Your task to perform on an android device: snooze an email in the gmail app Image 0: 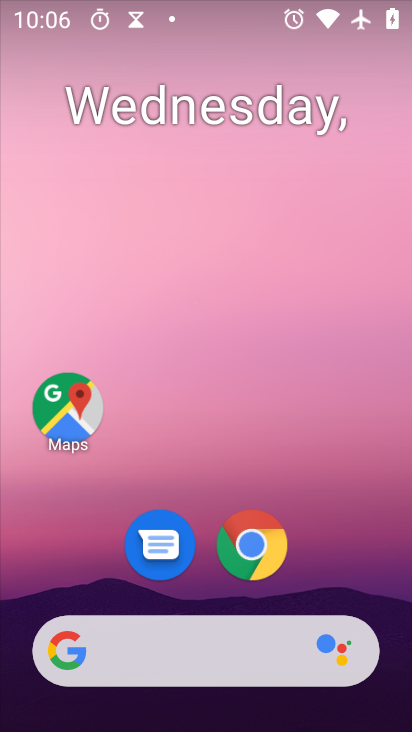
Step 0: press home button
Your task to perform on an android device: snooze an email in the gmail app Image 1: 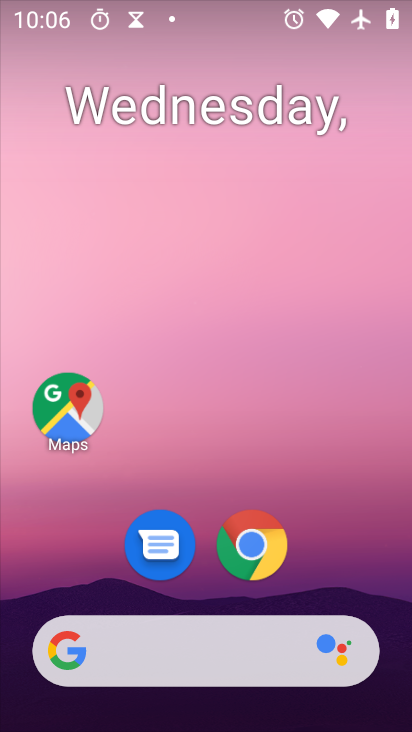
Step 1: drag from (191, 650) to (249, 98)
Your task to perform on an android device: snooze an email in the gmail app Image 2: 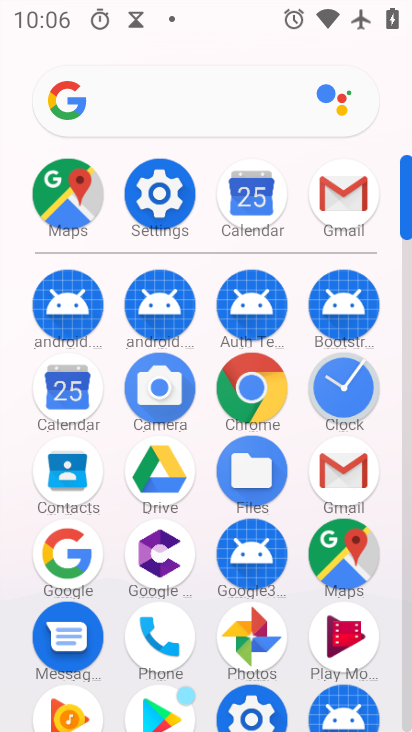
Step 2: click (341, 211)
Your task to perform on an android device: snooze an email in the gmail app Image 3: 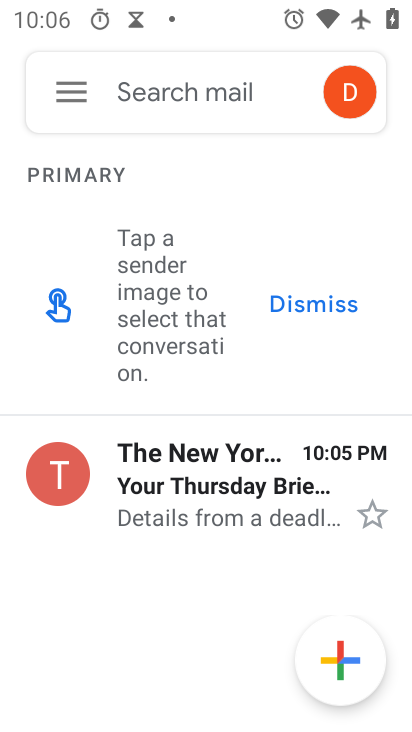
Step 3: click (56, 472)
Your task to perform on an android device: snooze an email in the gmail app Image 4: 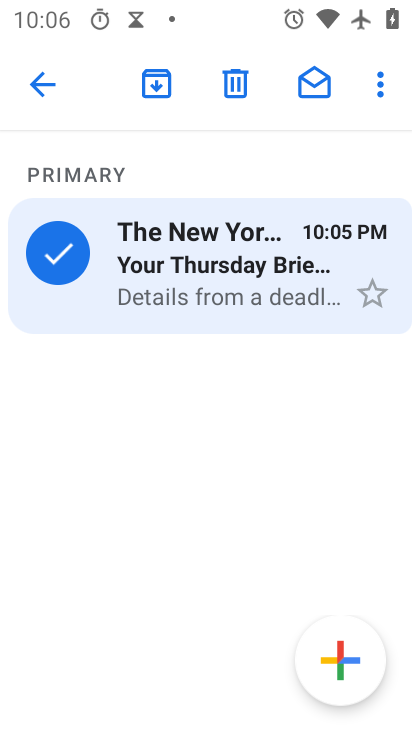
Step 4: click (383, 83)
Your task to perform on an android device: snooze an email in the gmail app Image 5: 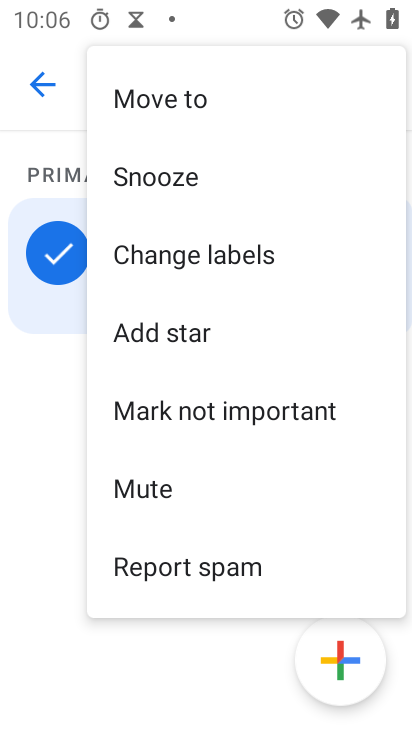
Step 5: click (173, 176)
Your task to perform on an android device: snooze an email in the gmail app Image 6: 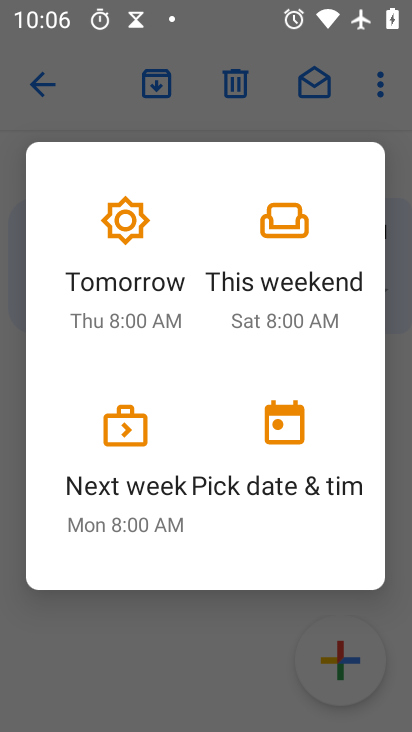
Step 6: click (125, 266)
Your task to perform on an android device: snooze an email in the gmail app Image 7: 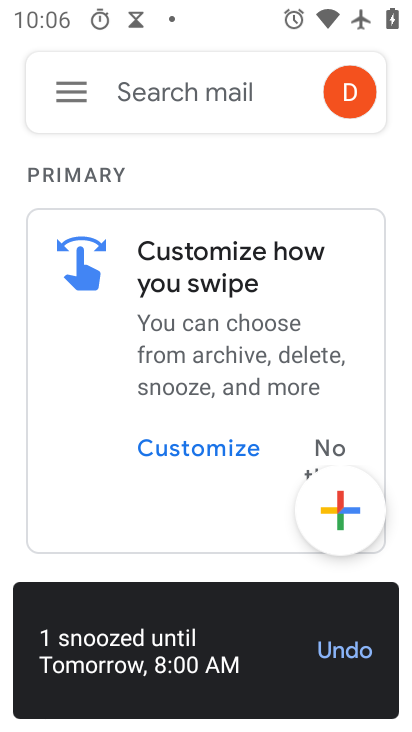
Step 7: task complete